Your task to perform on an android device: delete the emails in spam in the gmail app Image 0: 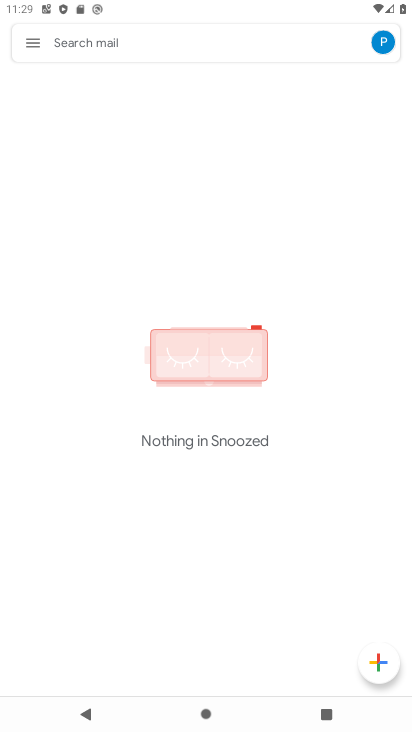
Step 0: press home button
Your task to perform on an android device: delete the emails in spam in the gmail app Image 1: 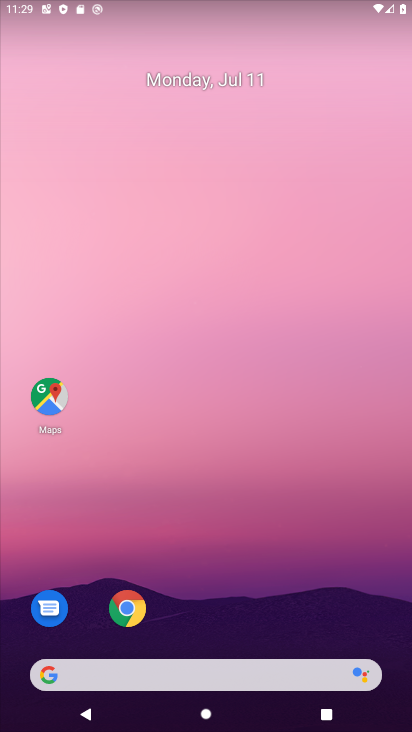
Step 1: drag from (182, 649) to (309, 56)
Your task to perform on an android device: delete the emails in spam in the gmail app Image 2: 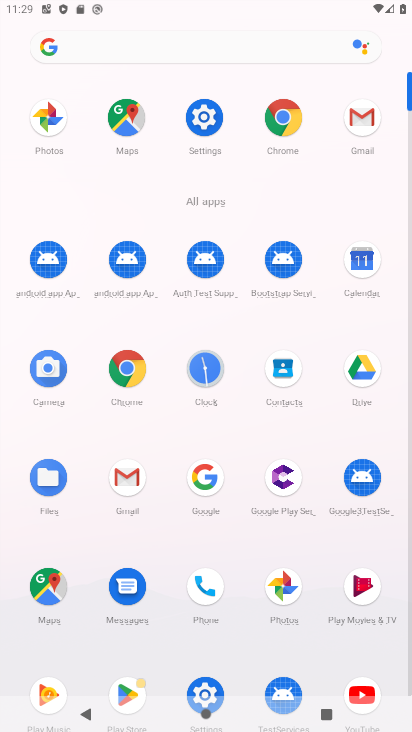
Step 2: click (351, 126)
Your task to perform on an android device: delete the emails in spam in the gmail app Image 3: 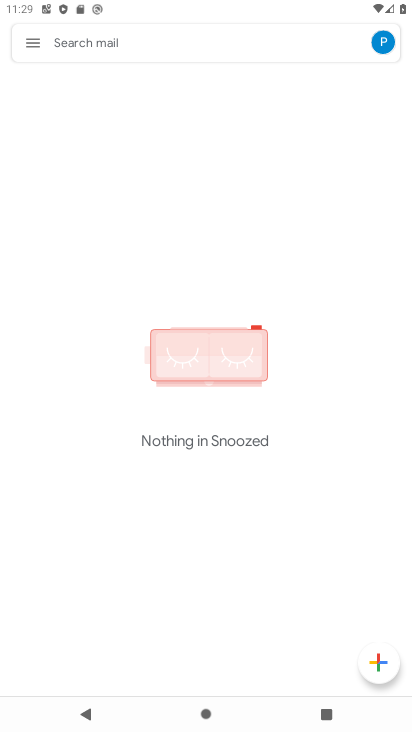
Step 3: click (41, 43)
Your task to perform on an android device: delete the emails in spam in the gmail app Image 4: 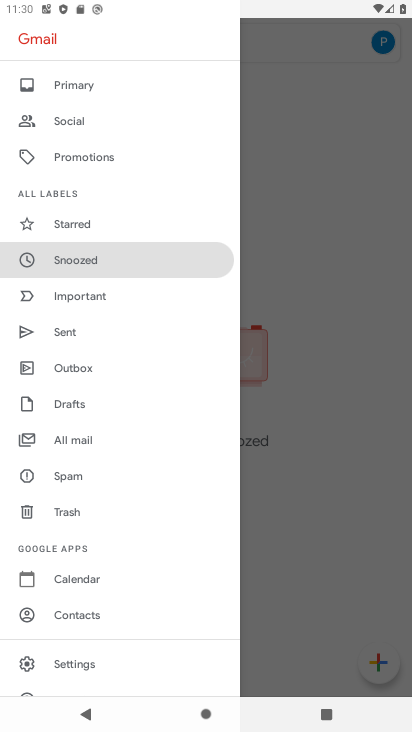
Step 4: click (87, 479)
Your task to perform on an android device: delete the emails in spam in the gmail app Image 5: 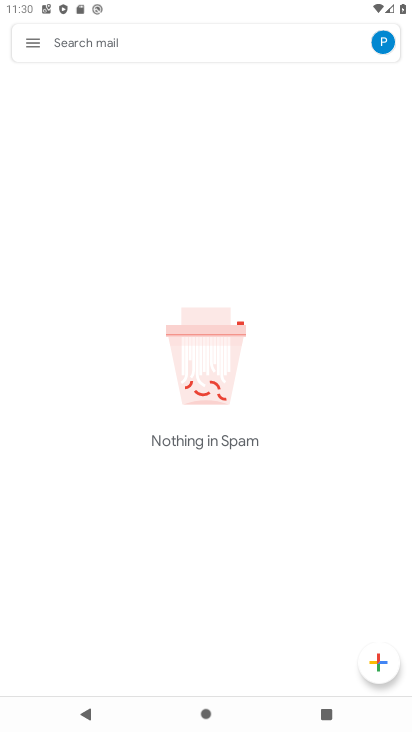
Step 5: task complete